Your task to perform on an android device: Go to battery settings Image 0: 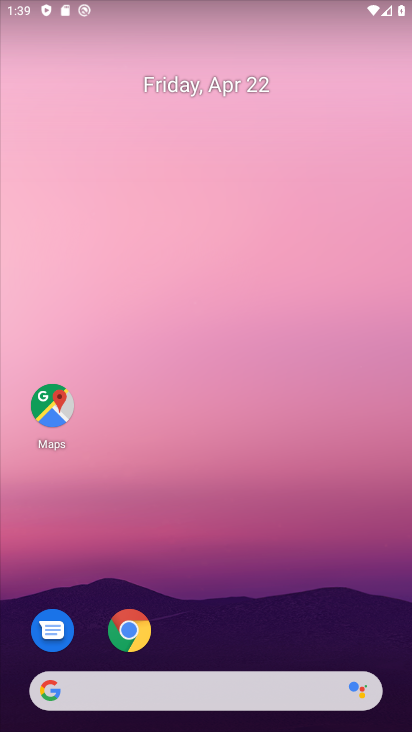
Step 0: drag from (211, 628) to (316, 151)
Your task to perform on an android device: Go to battery settings Image 1: 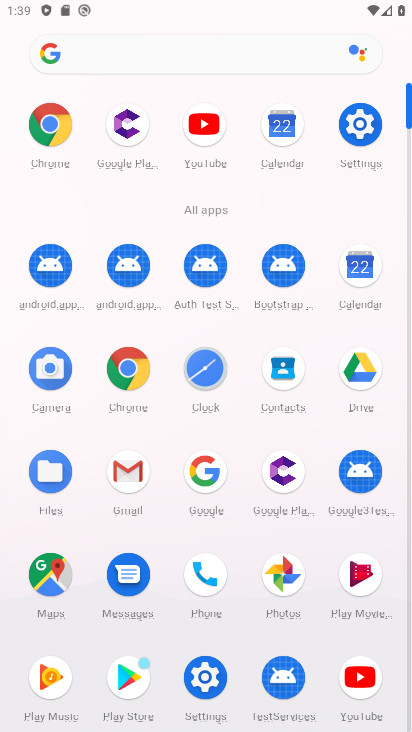
Step 1: click (370, 121)
Your task to perform on an android device: Go to battery settings Image 2: 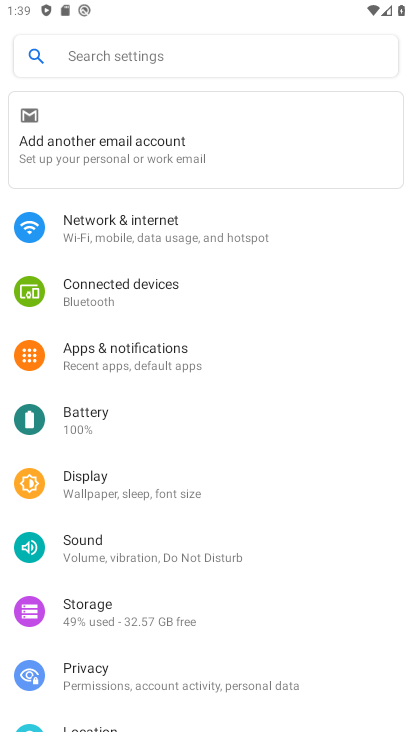
Step 2: click (155, 416)
Your task to perform on an android device: Go to battery settings Image 3: 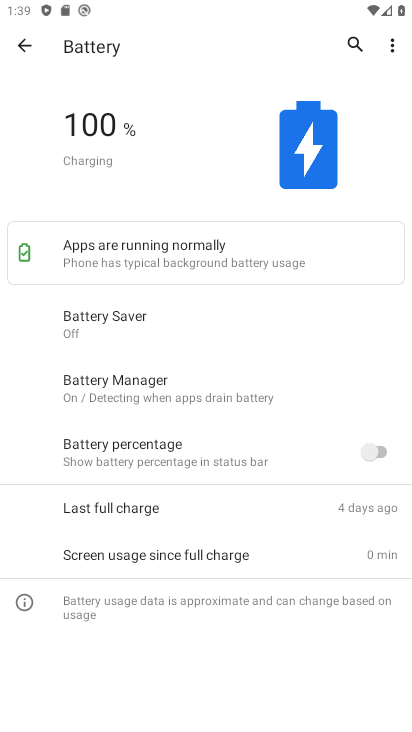
Step 3: task complete